Your task to perform on an android device: check google app version Image 0: 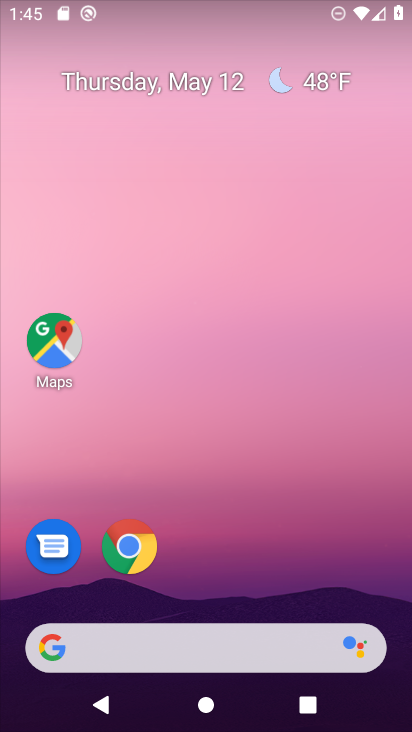
Step 0: drag from (253, 579) to (215, 211)
Your task to perform on an android device: check google app version Image 1: 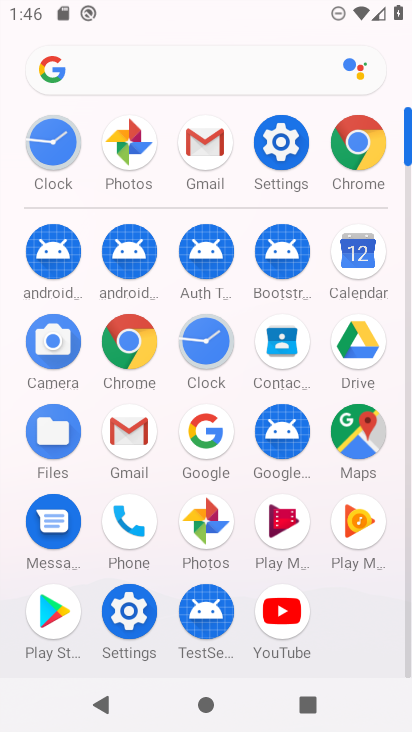
Step 1: click (347, 150)
Your task to perform on an android device: check google app version Image 2: 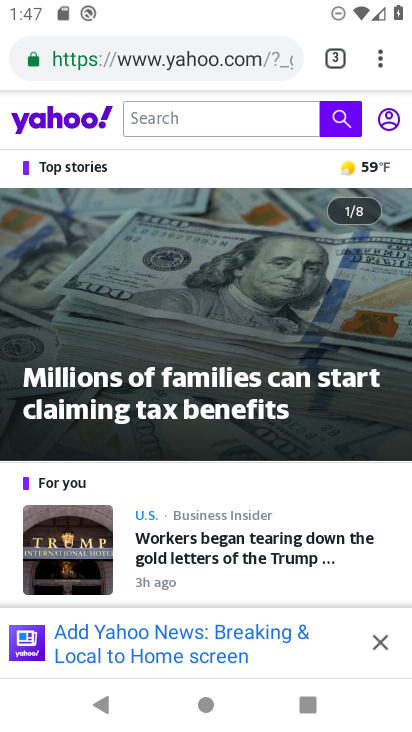
Step 2: click (378, 65)
Your task to perform on an android device: check google app version Image 3: 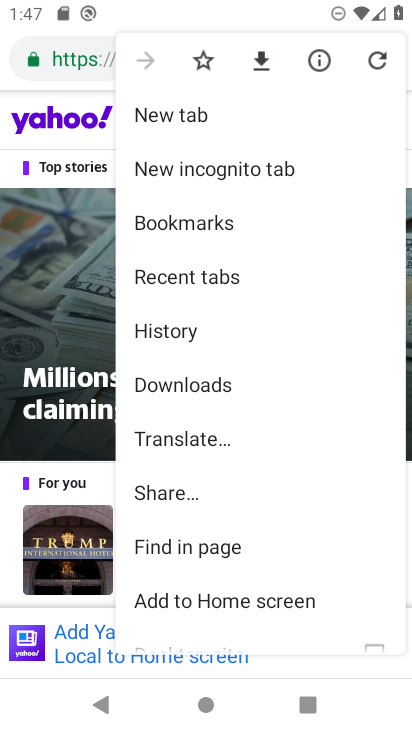
Step 3: drag from (228, 557) to (237, 360)
Your task to perform on an android device: check google app version Image 4: 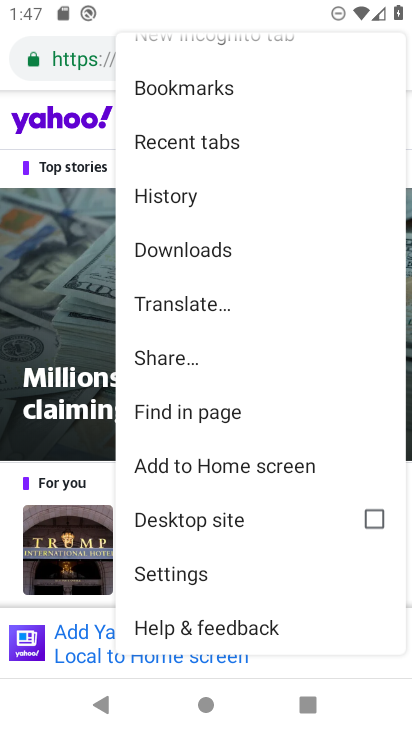
Step 4: click (195, 575)
Your task to perform on an android device: check google app version Image 5: 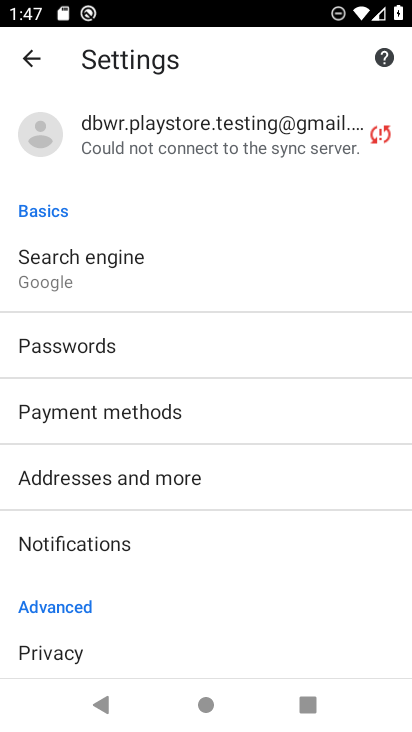
Step 5: drag from (150, 583) to (172, 330)
Your task to perform on an android device: check google app version Image 6: 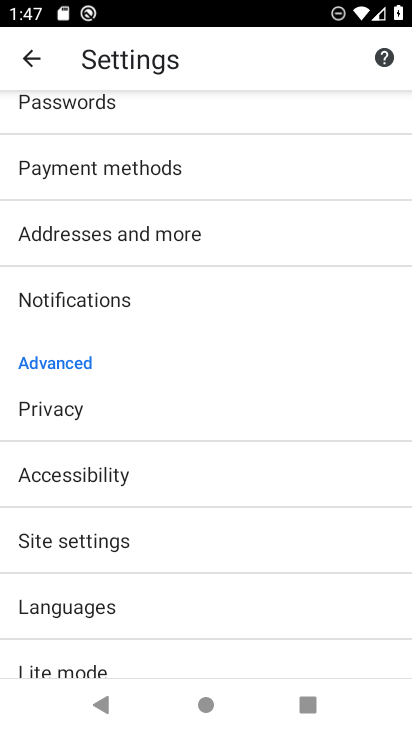
Step 6: drag from (144, 602) to (141, 388)
Your task to perform on an android device: check google app version Image 7: 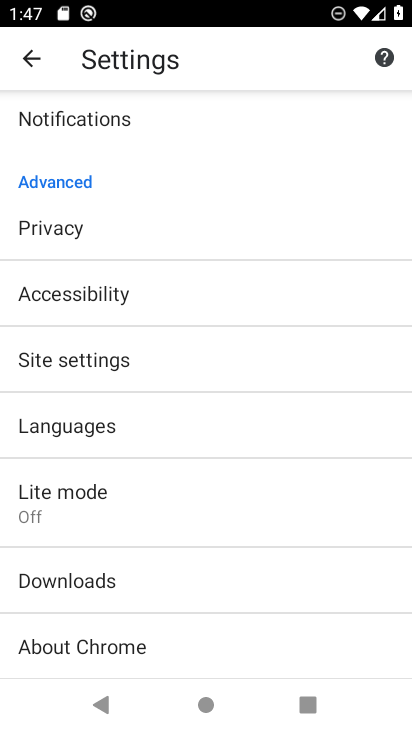
Step 7: click (82, 640)
Your task to perform on an android device: check google app version Image 8: 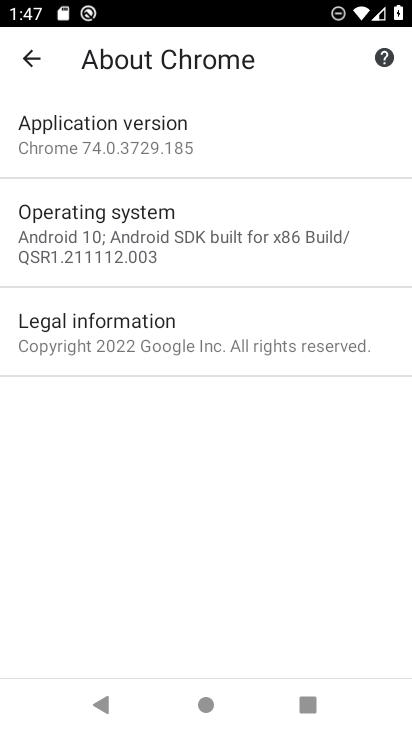
Step 8: click (97, 134)
Your task to perform on an android device: check google app version Image 9: 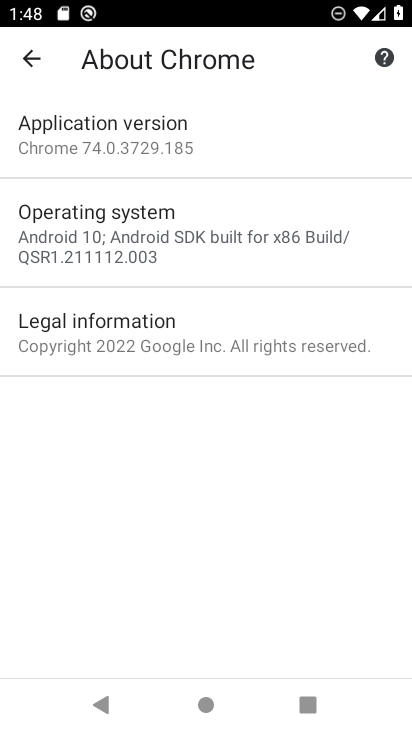
Step 9: task complete